Your task to perform on an android device: delete a single message in the gmail app Image 0: 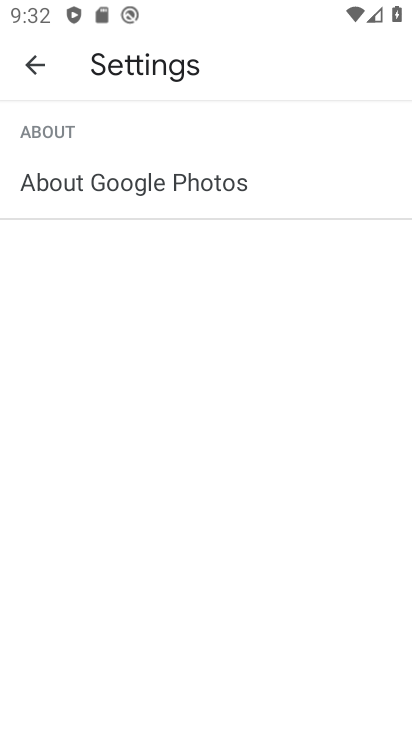
Step 0: press home button
Your task to perform on an android device: delete a single message in the gmail app Image 1: 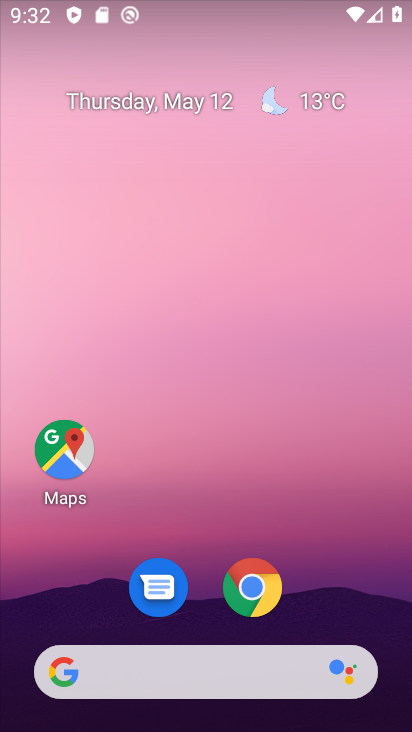
Step 1: drag from (341, 543) to (308, 19)
Your task to perform on an android device: delete a single message in the gmail app Image 2: 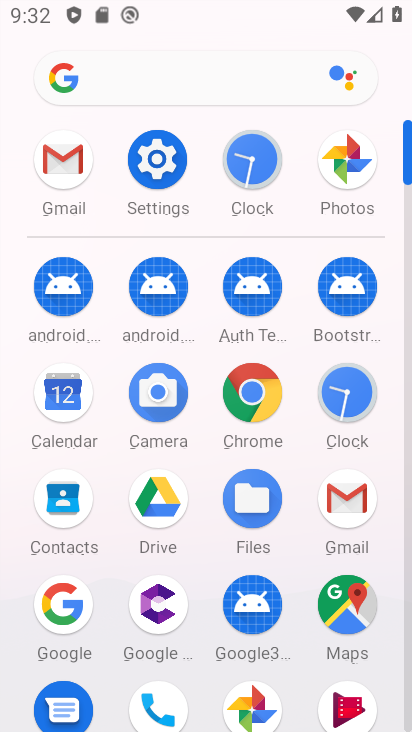
Step 2: click (56, 164)
Your task to perform on an android device: delete a single message in the gmail app Image 3: 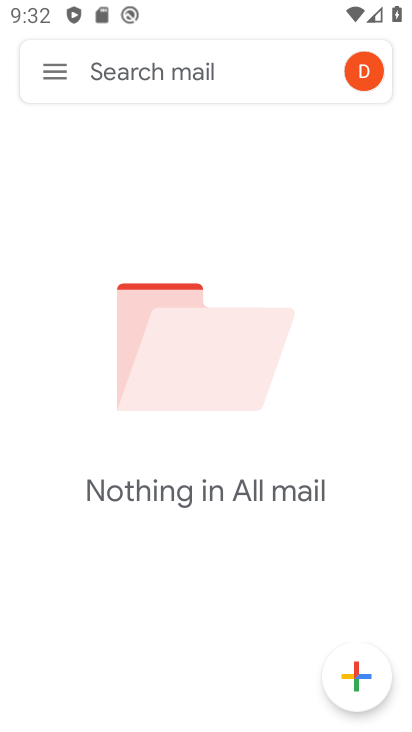
Step 3: task complete